Your task to perform on an android device: Add "acer nitro" to the cart on newegg, then select checkout. Image 0: 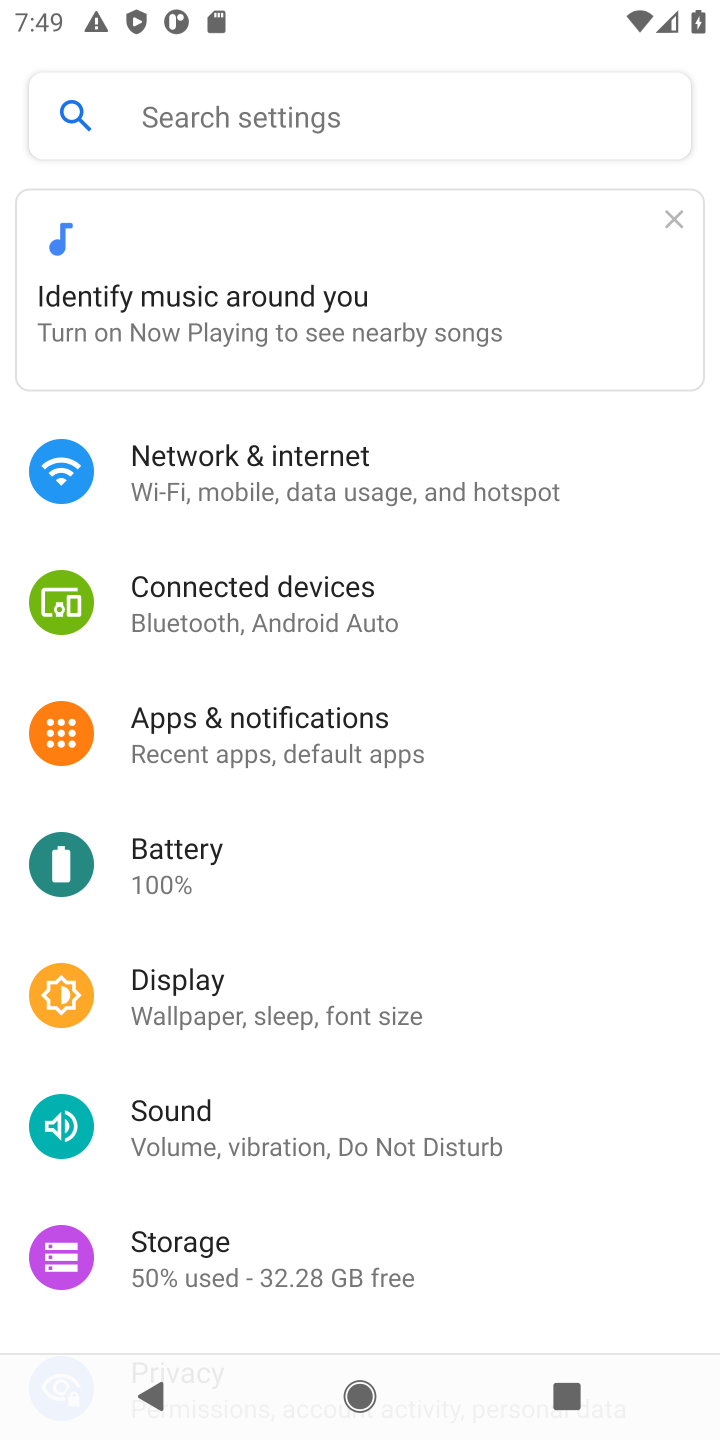
Step 0: press home button
Your task to perform on an android device: Add "acer nitro" to the cart on newegg, then select checkout. Image 1: 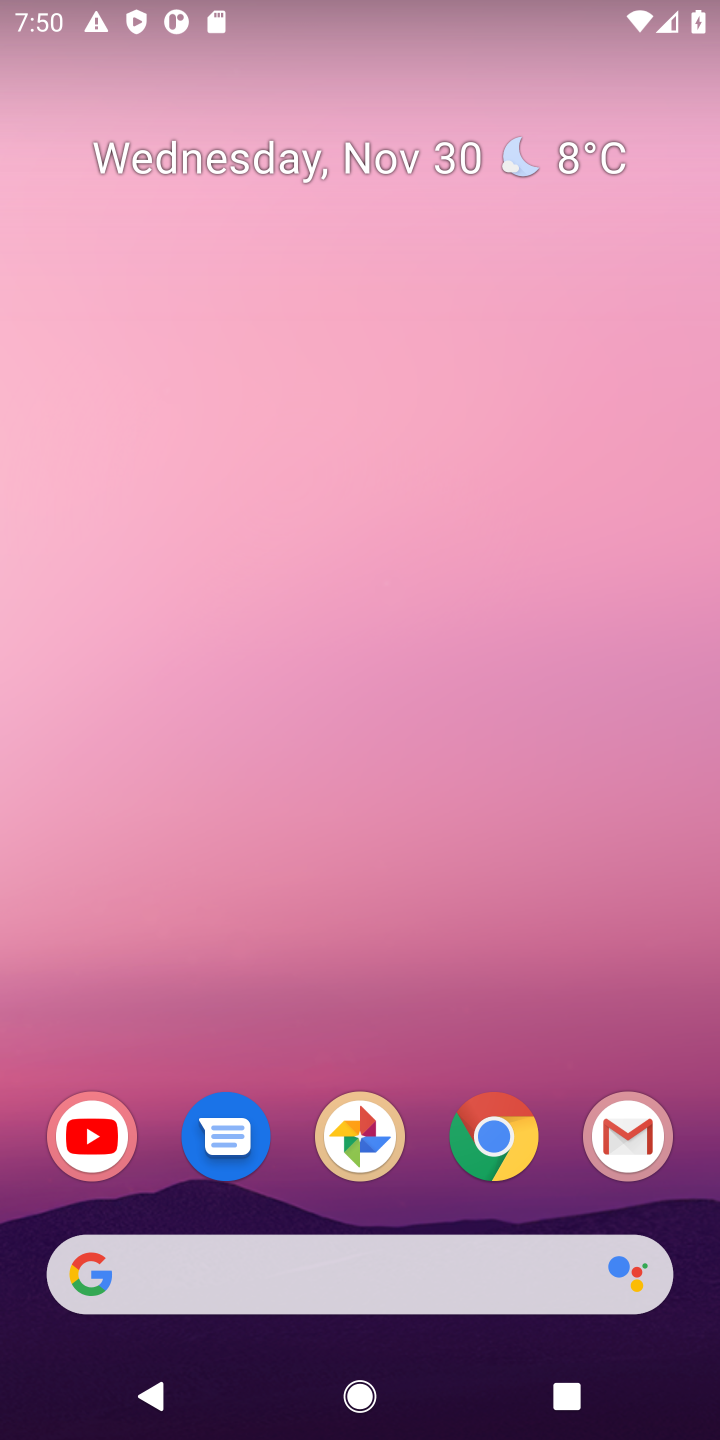
Step 1: click (495, 1138)
Your task to perform on an android device: Add "acer nitro" to the cart on newegg, then select checkout. Image 2: 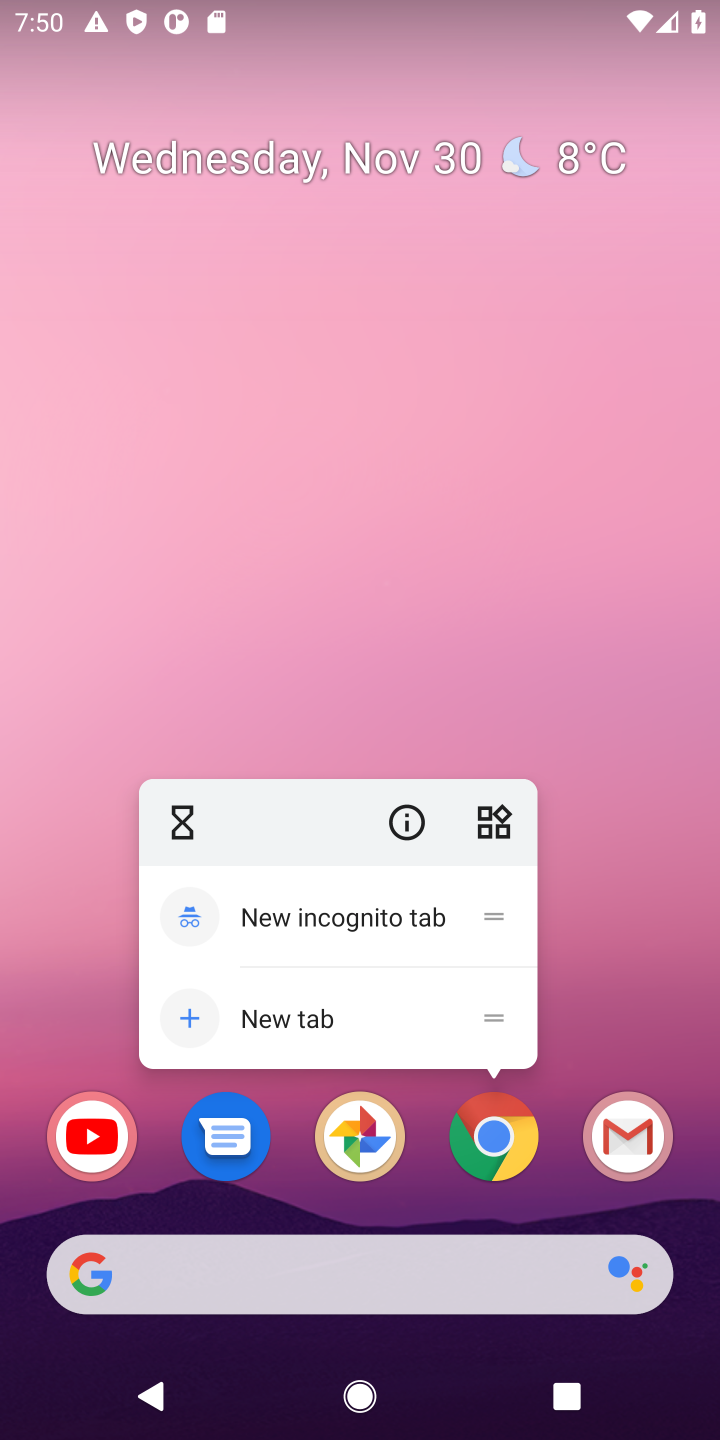
Step 2: click (495, 1141)
Your task to perform on an android device: Add "acer nitro" to the cart on newegg, then select checkout. Image 3: 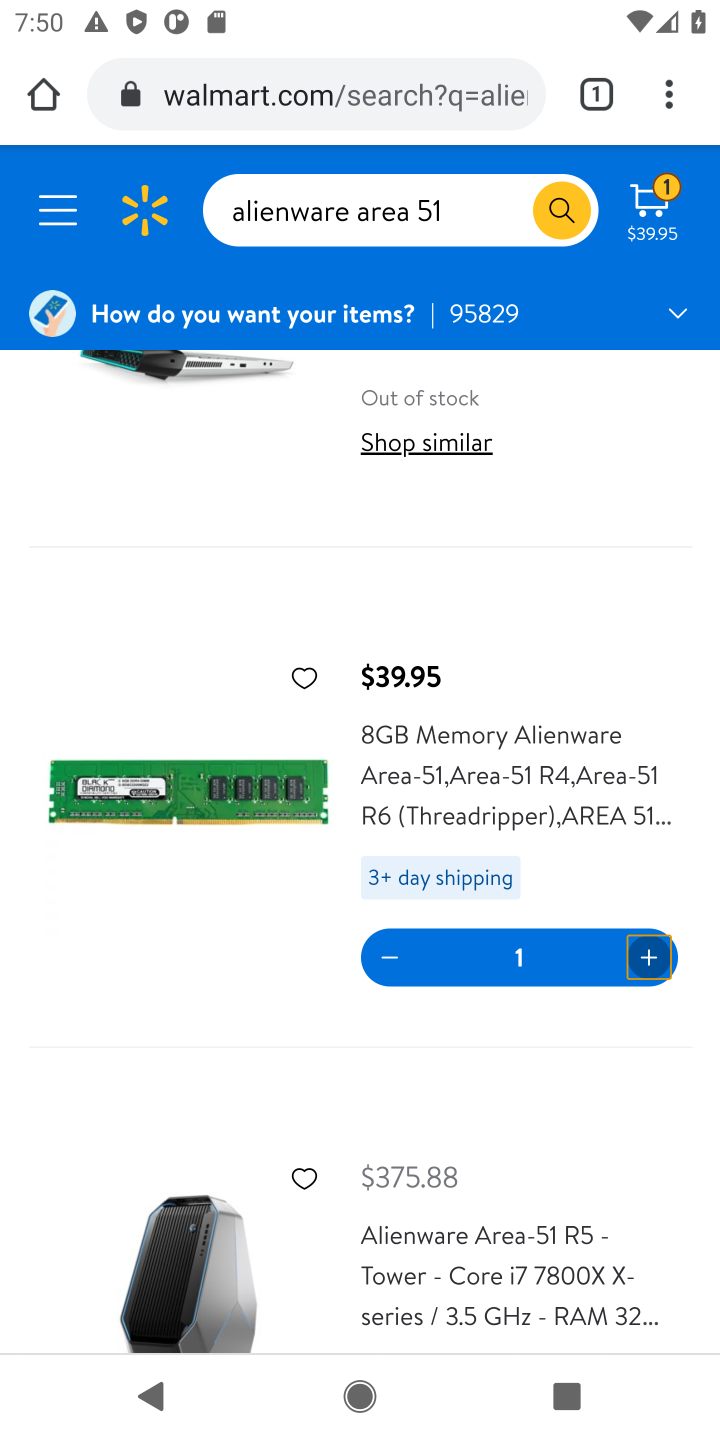
Step 3: click (358, 99)
Your task to perform on an android device: Add "acer nitro" to the cart on newegg, then select checkout. Image 4: 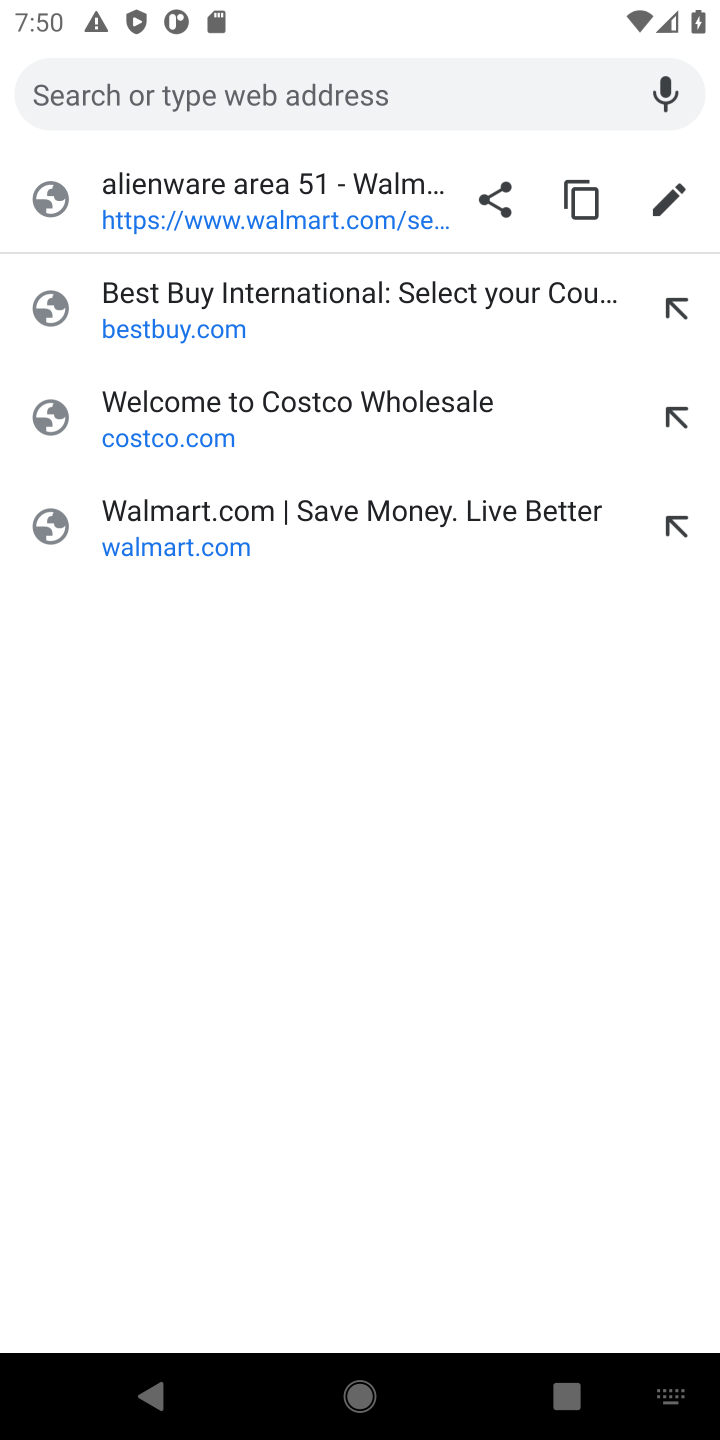
Step 4: type "newegg.com"
Your task to perform on an android device: Add "acer nitro" to the cart on newegg, then select checkout. Image 5: 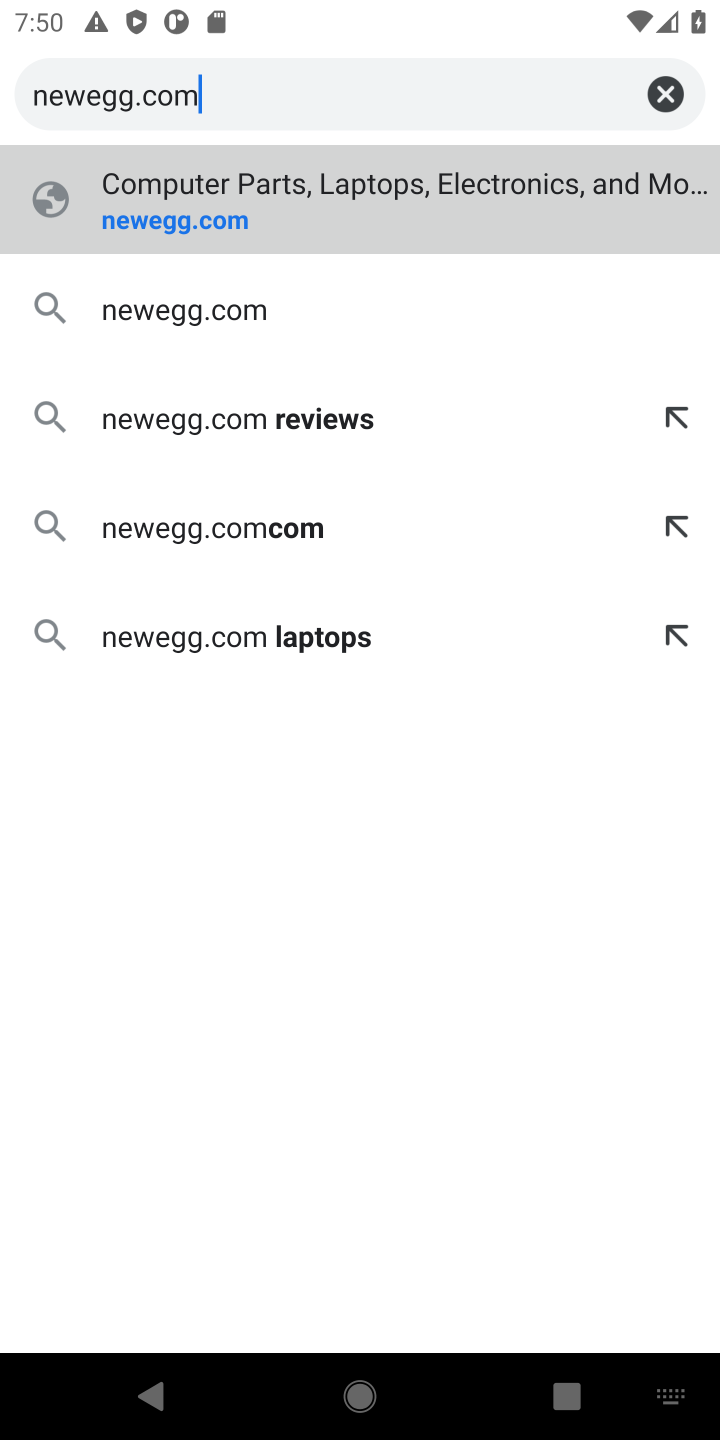
Step 5: click (203, 223)
Your task to perform on an android device: Add "acer nitro" to the cart on newegg, then select checkout. Image 6: 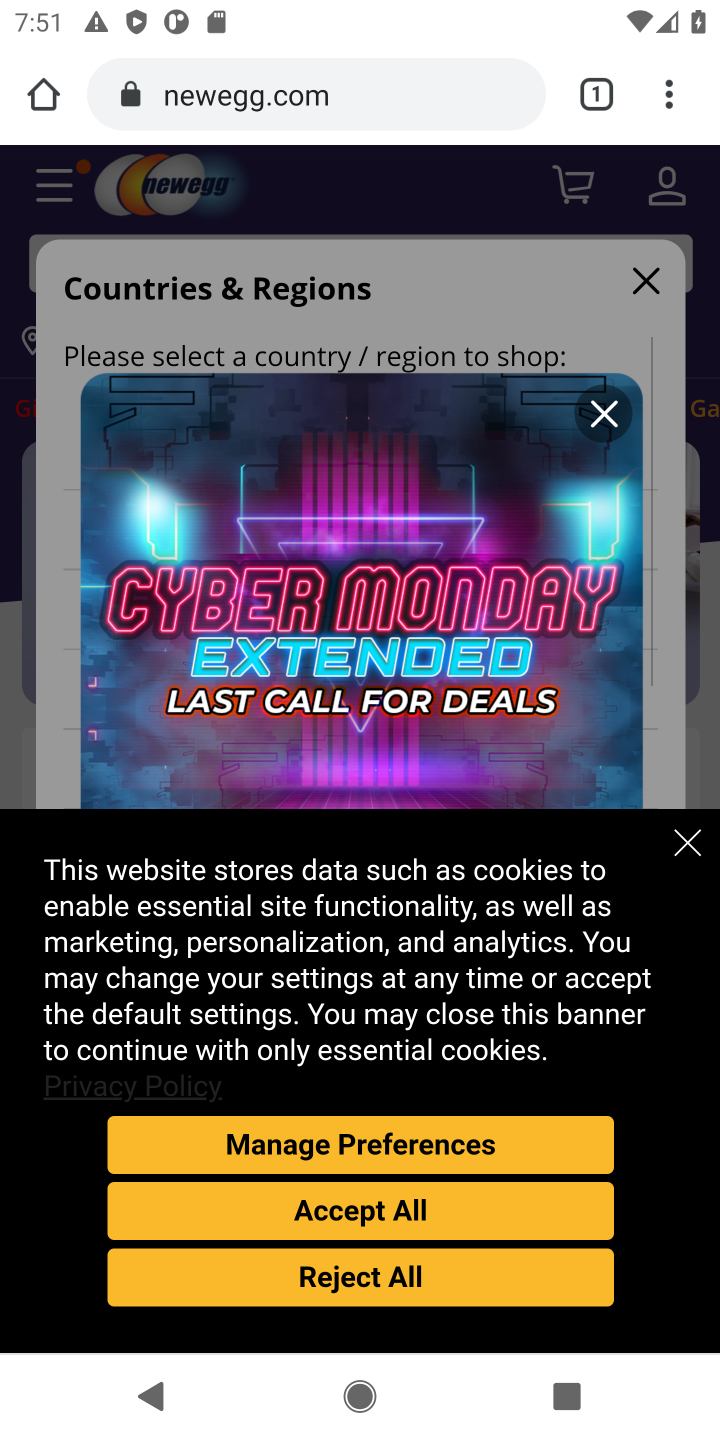
Step 6: click (692, 840)
Your task to perform on an android device: Add "acer nitro" to the cart on newegg, then select checkout. Image 7: 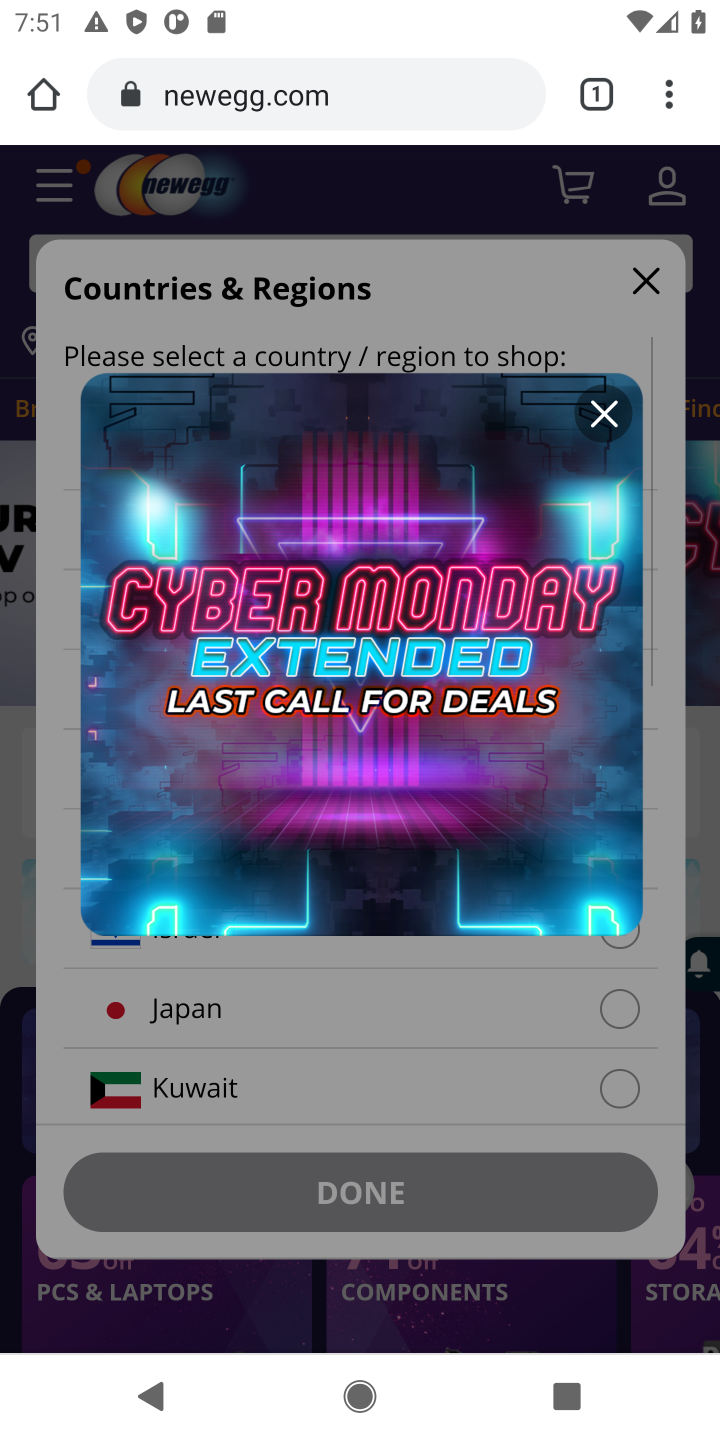
Step 7: click (605, 412)
Your task to perform on an android device: Add "acer nitro" to the cart on newegg, then select checkout. Image 8: 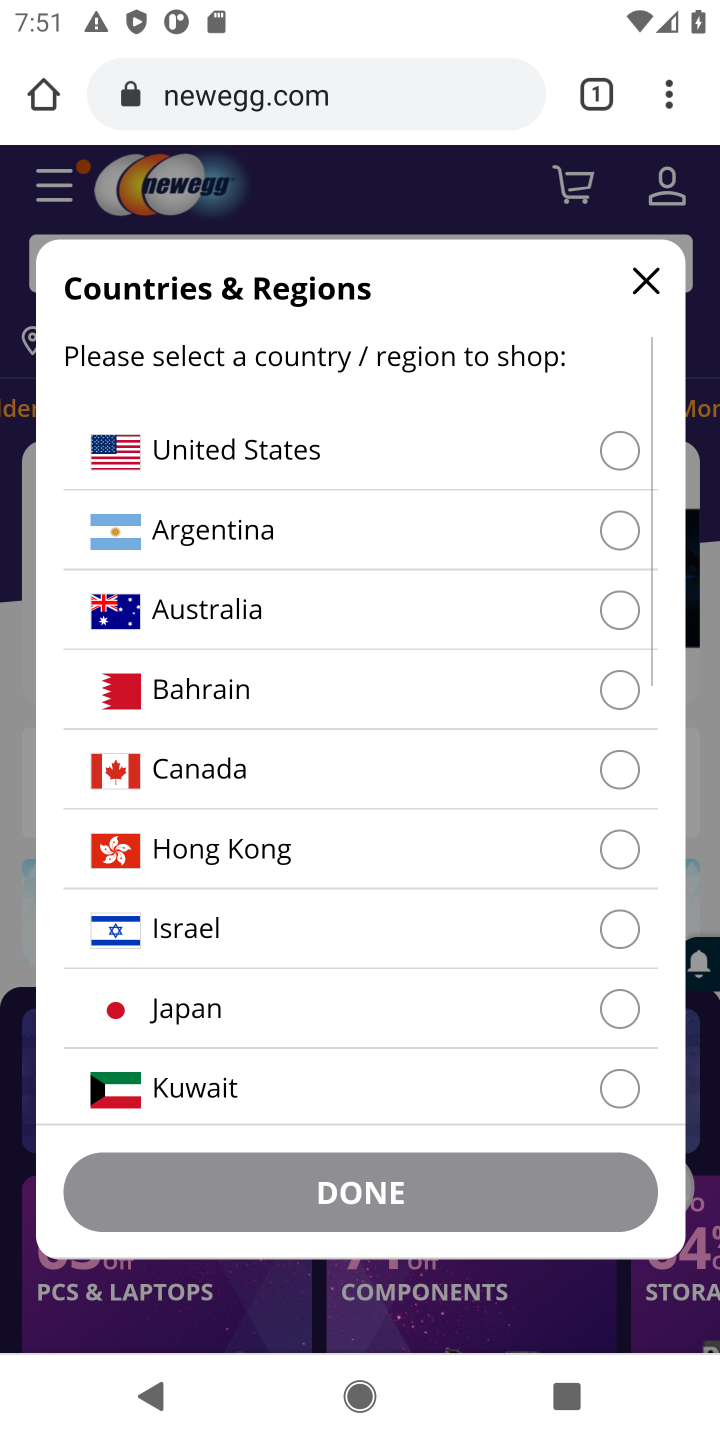
Step 8: click (221, 445)
Your task to perform on an android device: Add "acer nitro" to the cart on newegg, then select checkout. Image 9: 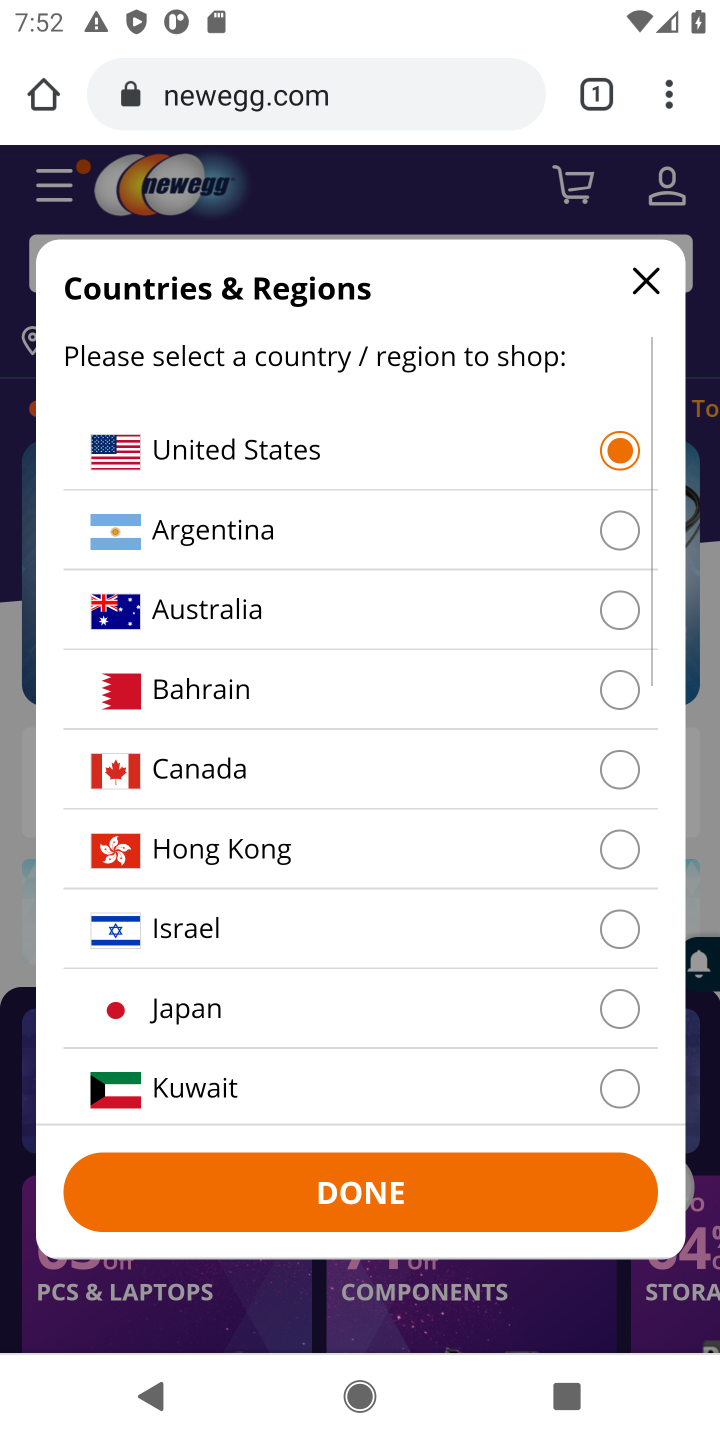
Step 9: click (305, 1179)
Your task to perform on an android device: Add "acer nitro" to the cart on newegg, then select checkout. Image 10: 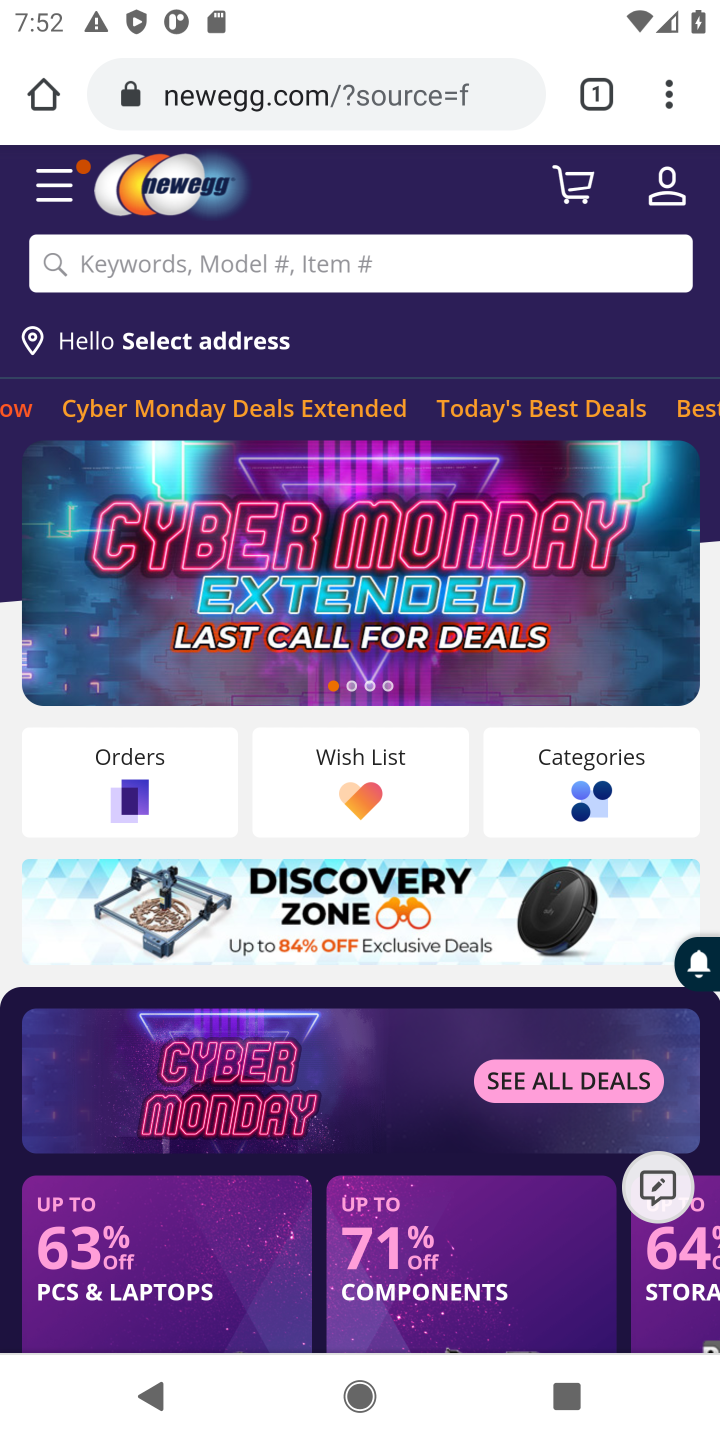
Step 10: click (193, 268)
Your task to perform on an android device: Add "acer nitro" to the cart on newegg, then select checkout. Image 11: 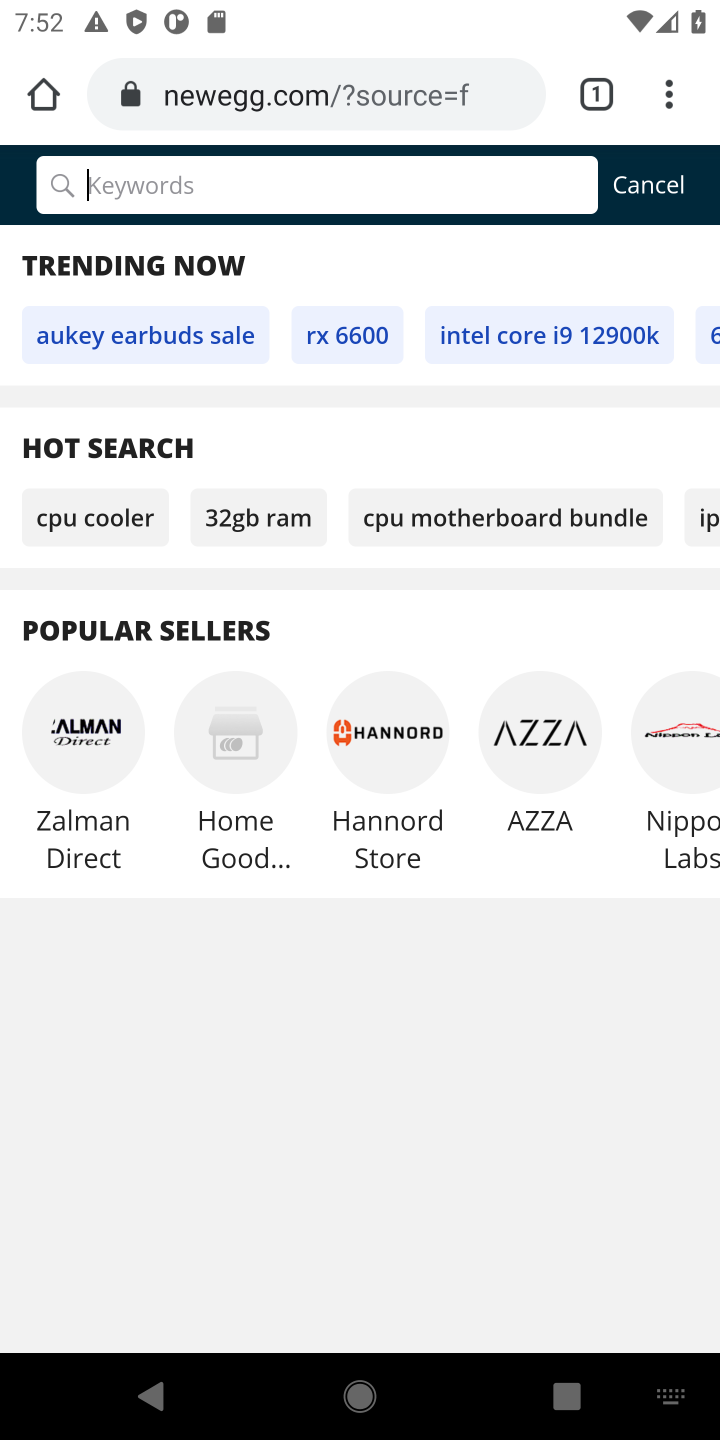
Step 11: type "acer nitro"
Your task to perform on an android device: Add "acer nitro" to the cart on newegg, then select checkout. Image 12: 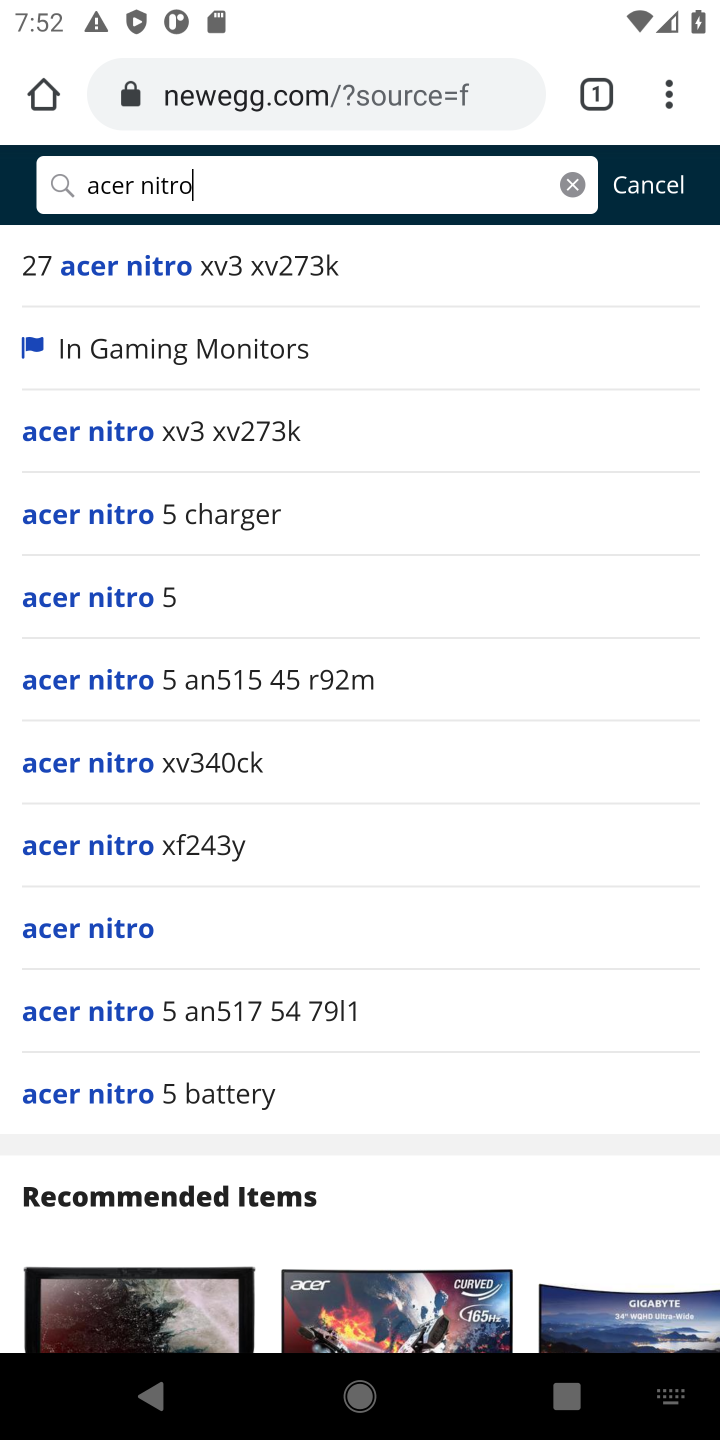
Step 12: click (98, 931)
Your task to perform on an android device: Add "acer nitro" to the cart on newegg, then select checkout. Image 13: 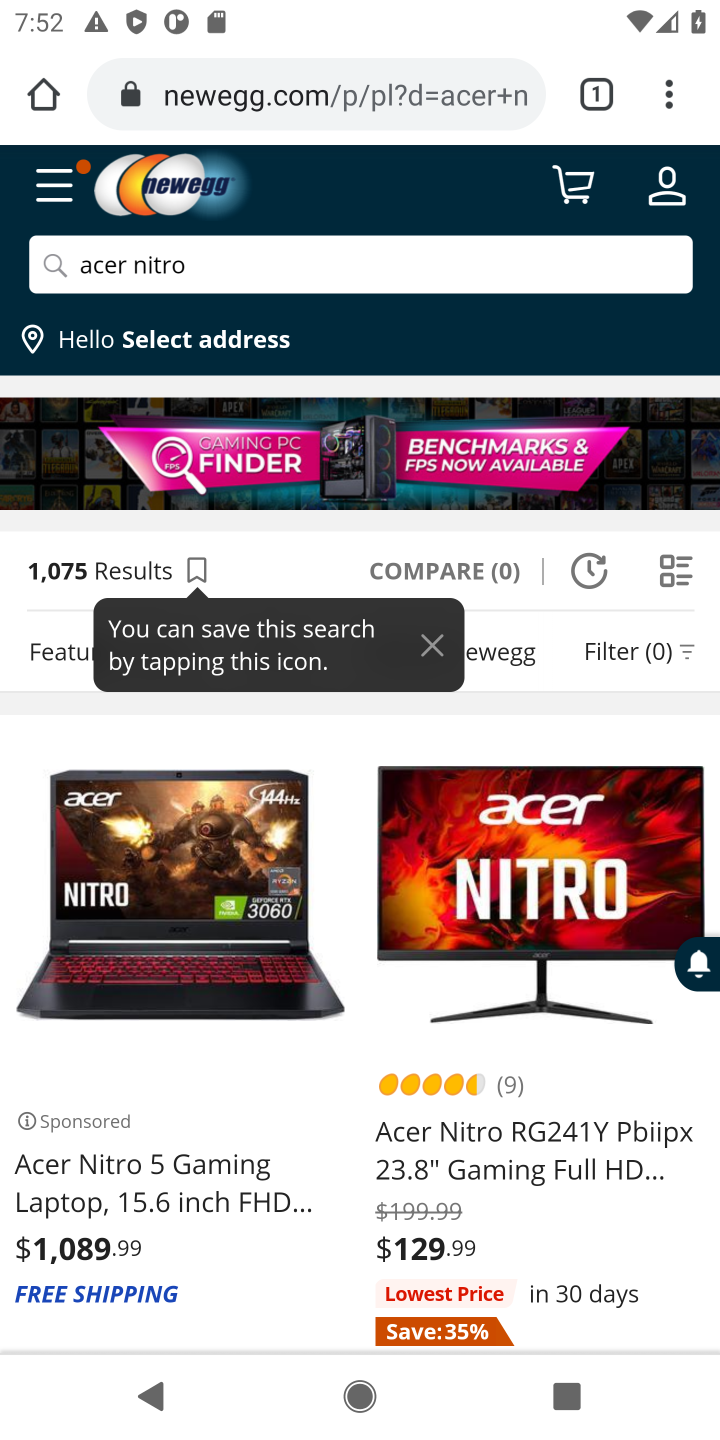
Step 13: click (175, 1163)
Your task to perform on an android device: Add "acer nitro" to the cart on newegg, then select checkout. Image 14: 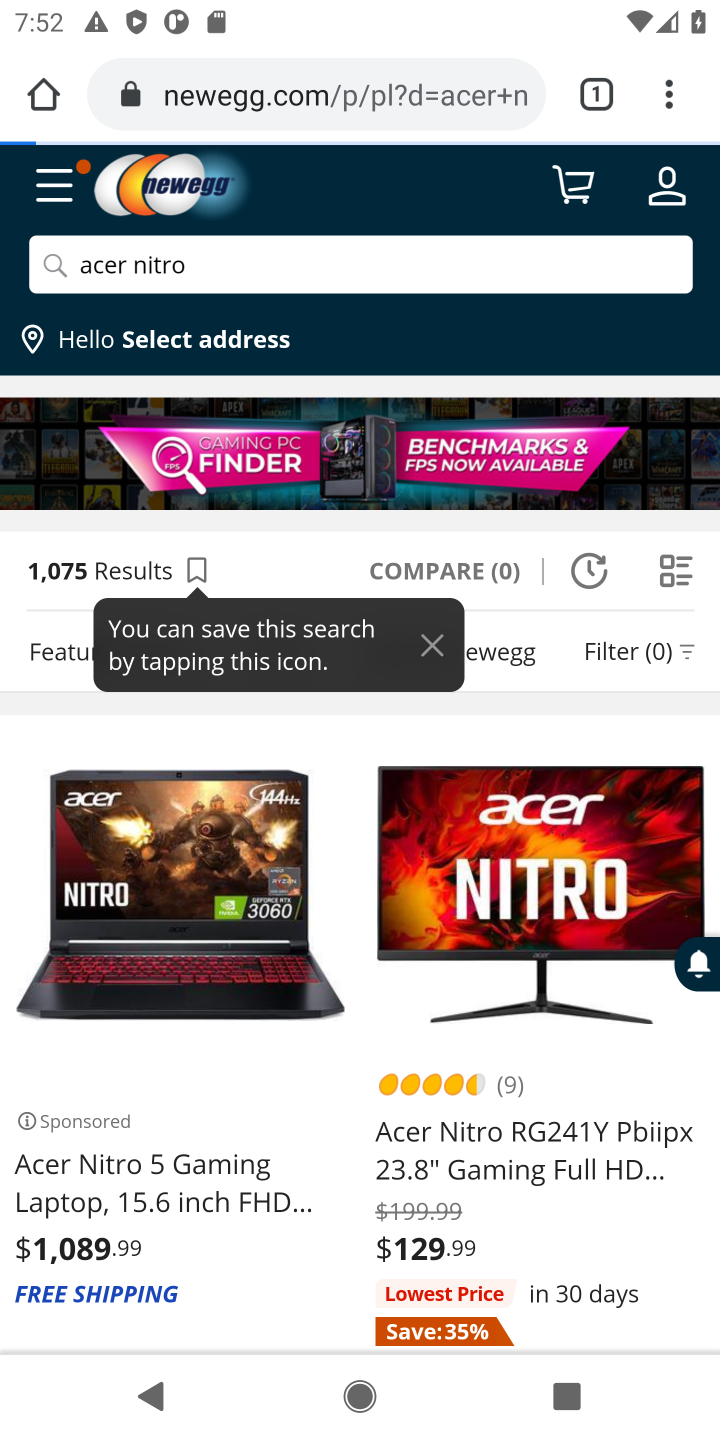
Step 14: click (155, 1179)
Your task to perform on an android device: Add "acer nitro" to the cart on newegg, then select checkout. Image 15: 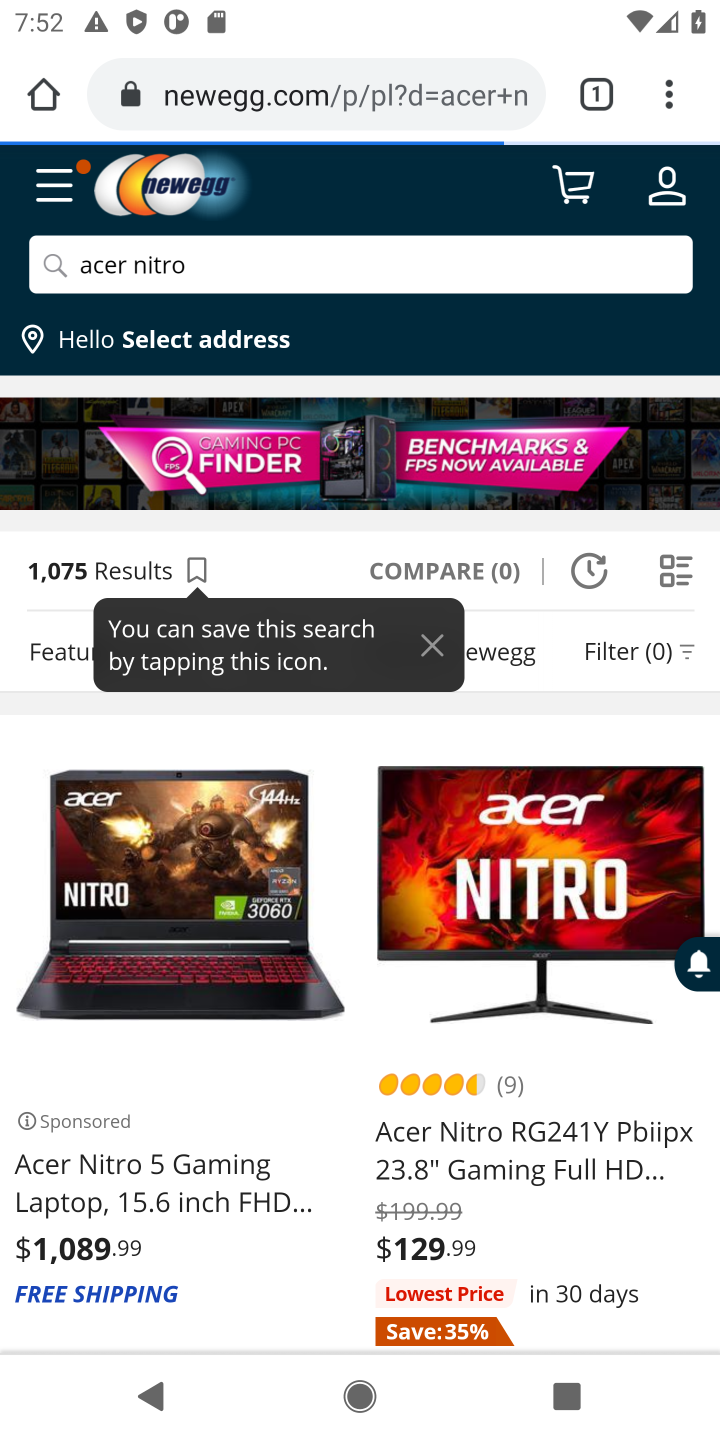
Step 15: click (139, 1180)
Your task to perform on an android device: Add "acer nitro" to the cart on newegg, then select checkout. Image 16: 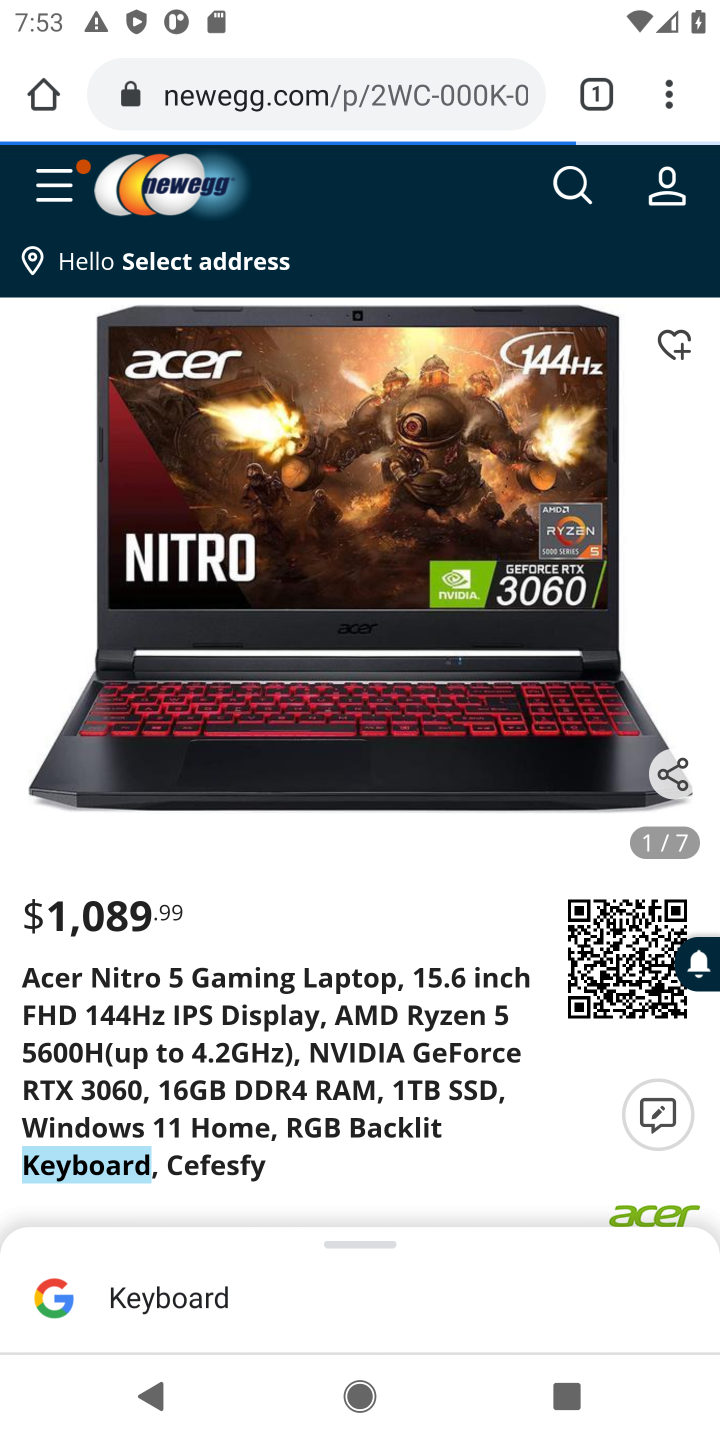
Step 16: drag from (364, 983) to (356, 594)
Your task to perform on an android device: Add "acer nitro" to the cart on newegg, then select checkout. Image 17: 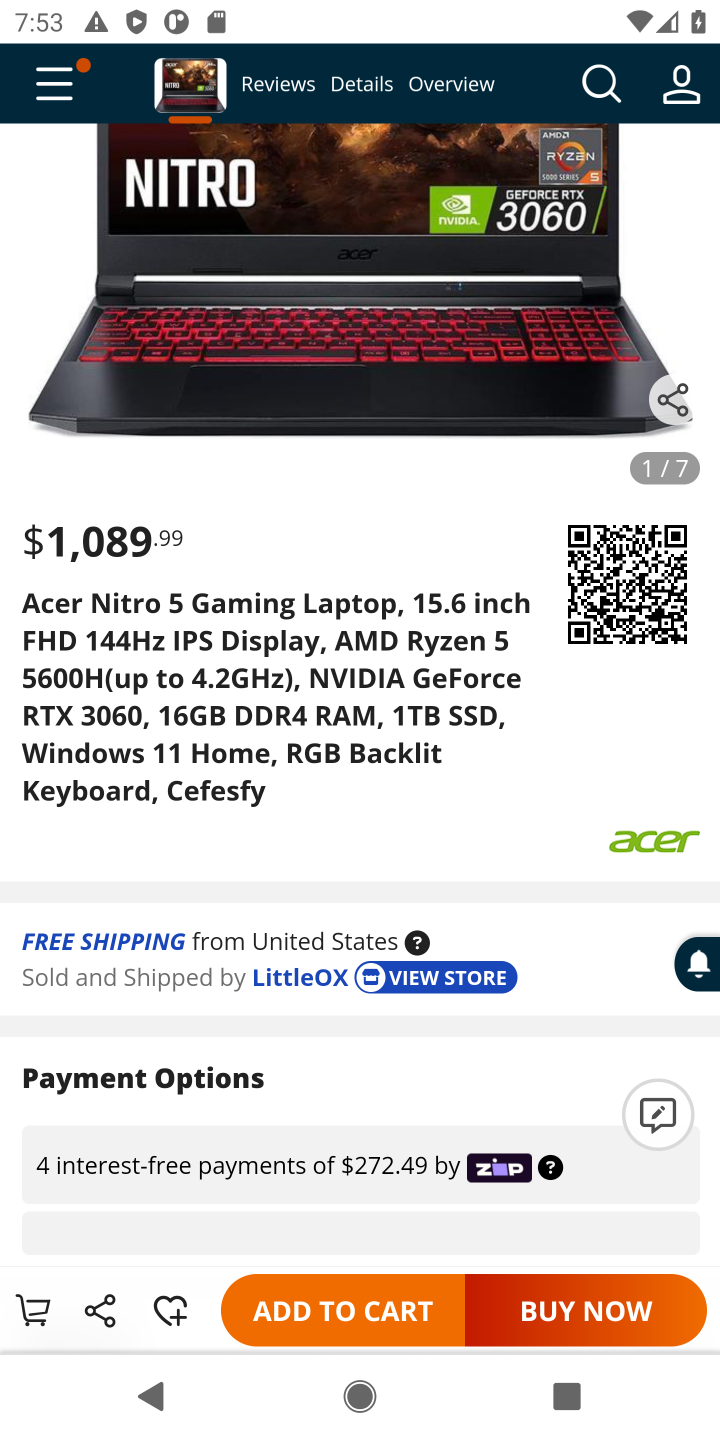
Step 17: click (351, 1306)
Your task to perform on an android device: Add "acer nitro" to the cart on newegg, then select checkout. Image 18: 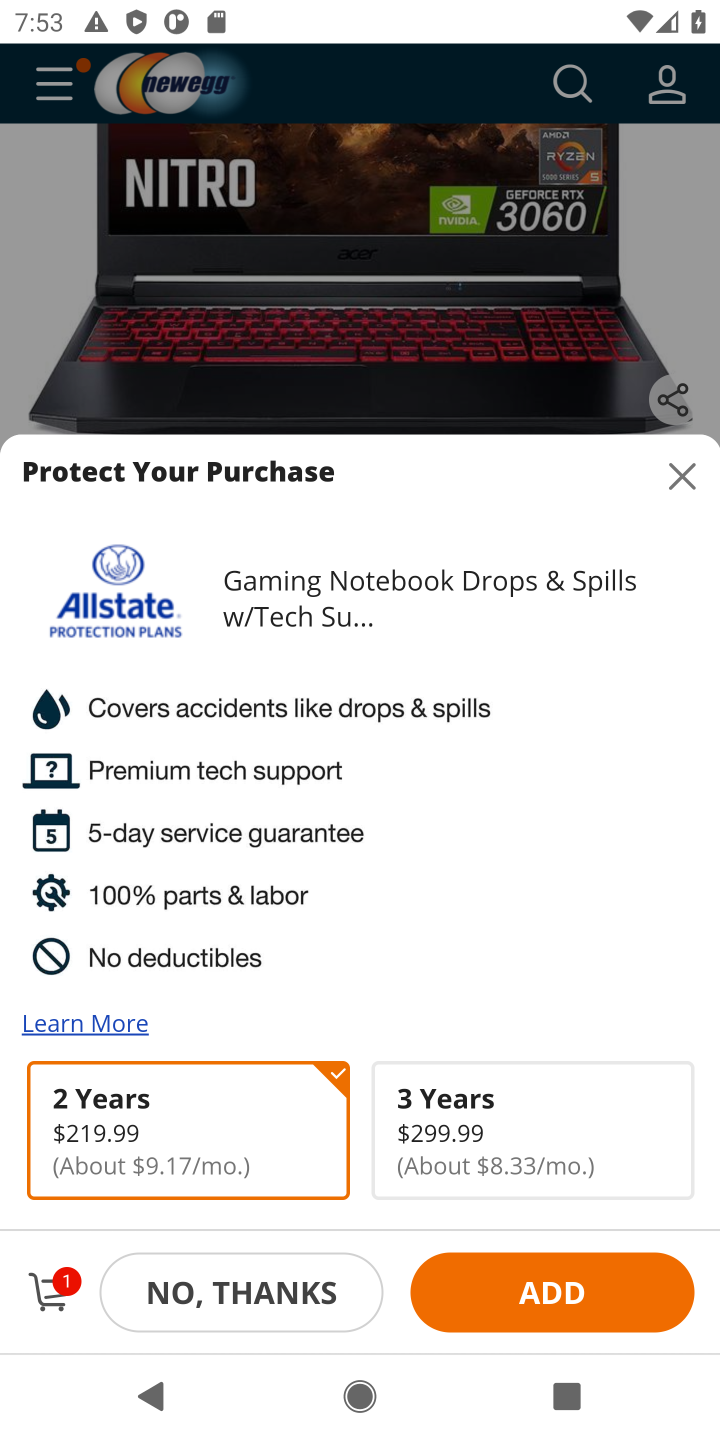
Step 18: click (46, 1287)
Your task to perform on an android device: Add "acer nitro" to the cart on newegg, then select checkout. Image 19: 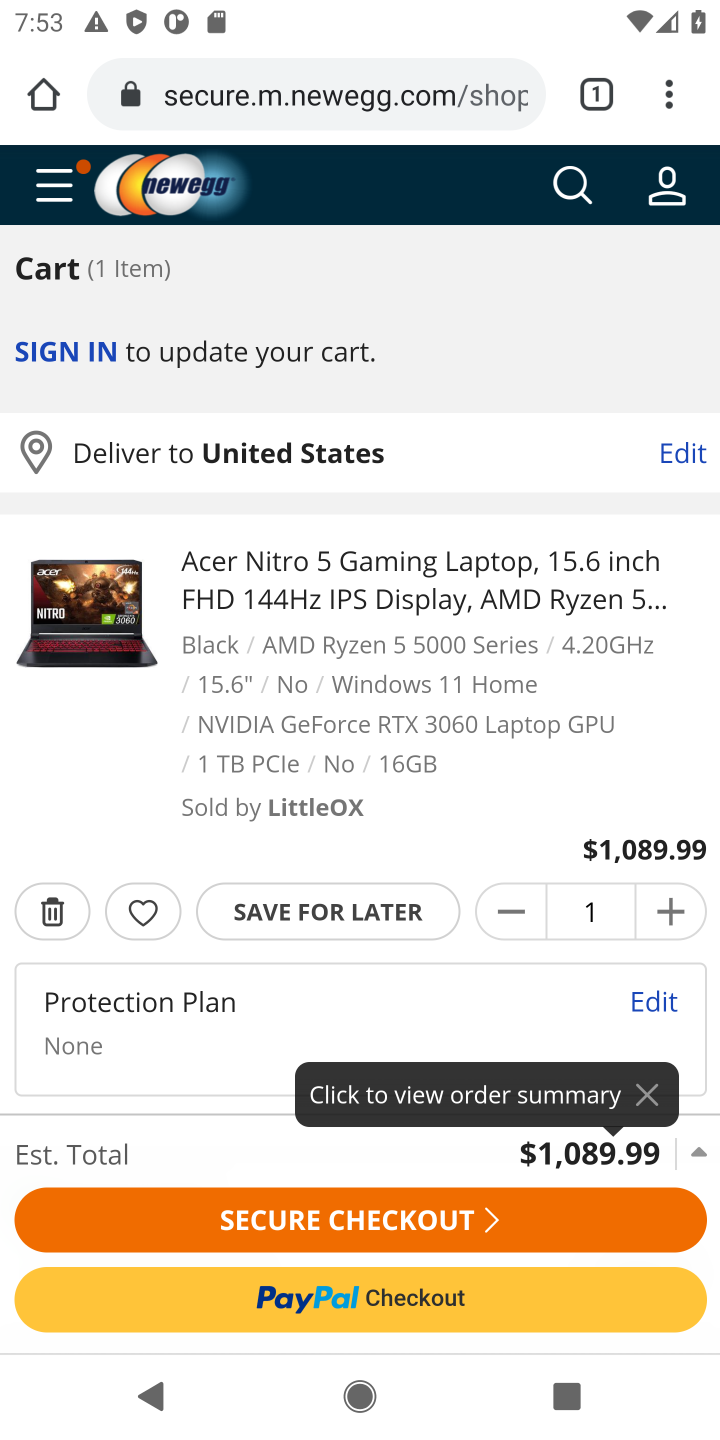
Step 19: click (387, 1229)
Your task to perform on an android device: Add "acer nitro" to the cart on newegg, then select checkout. Image 20: 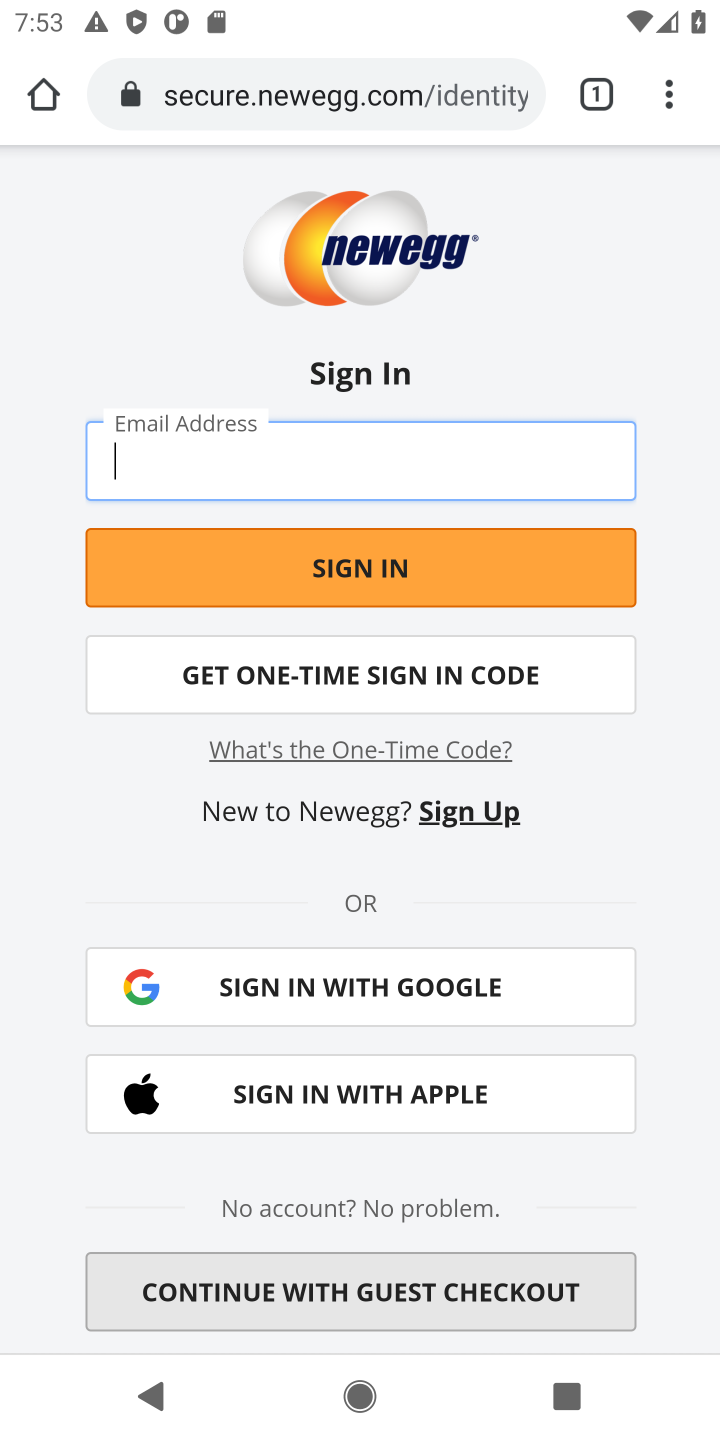
Step 20: task complete